Your task to perform on an android device: open device folders in google photos Image 0: 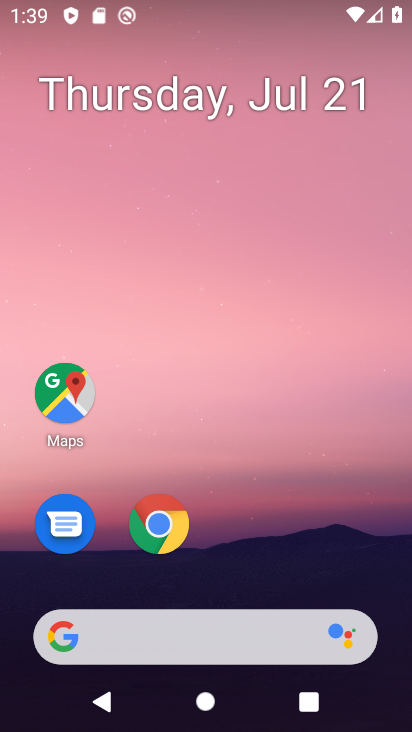
Step 0: drag from (268, 562) to (250, 58)
Your task to perform on an android device: open device folders in google photos Image 1: 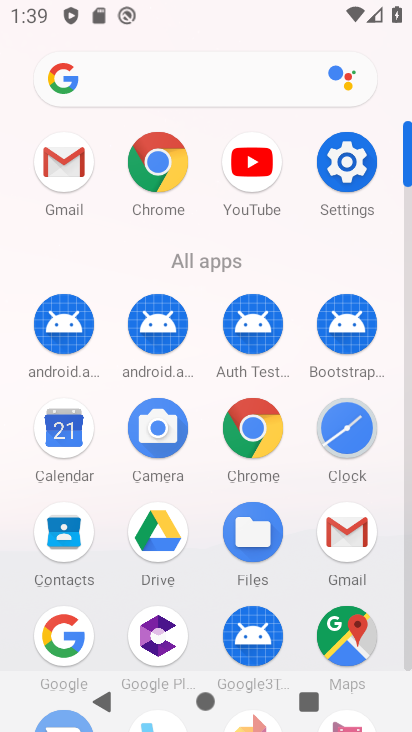
Step 1: drag from (211, 473) to (220, 190)
Your task to perform on an android device: open device folders in google photos Image 2: 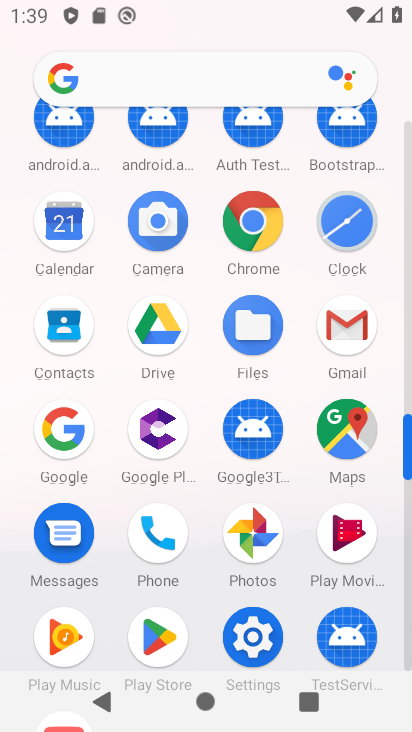
Step 2: click (268, 521)
Your task to perform on an android device: open device folders in google photos Image 3: 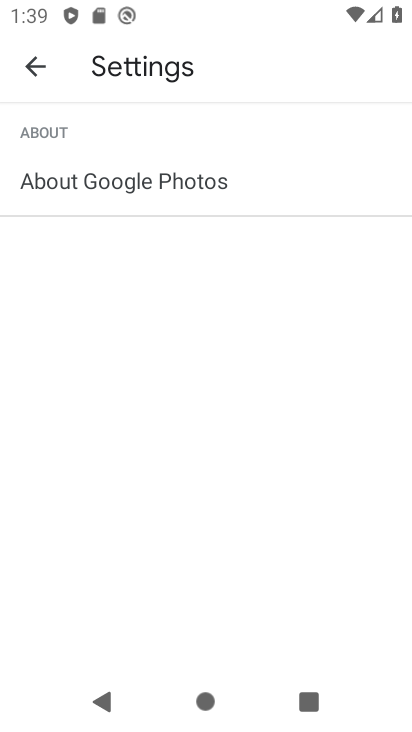
Step 3: click (45, 68)
Your task to perform on an android device: open device folders in google photos Image 4: 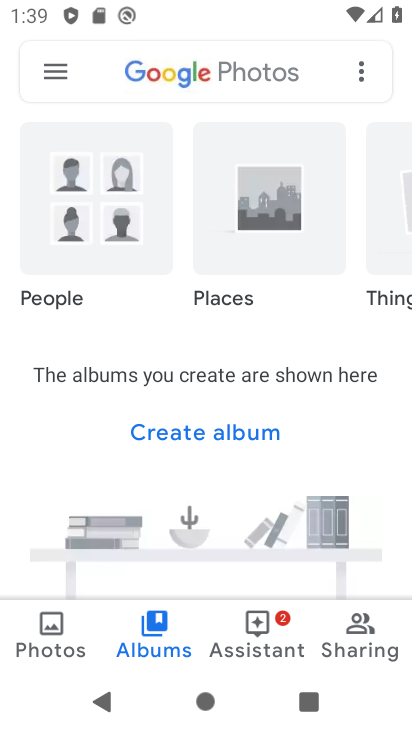
Step 4: click (58, 56)
Your task to perform on an android device: open device folders in google photos Image 5: 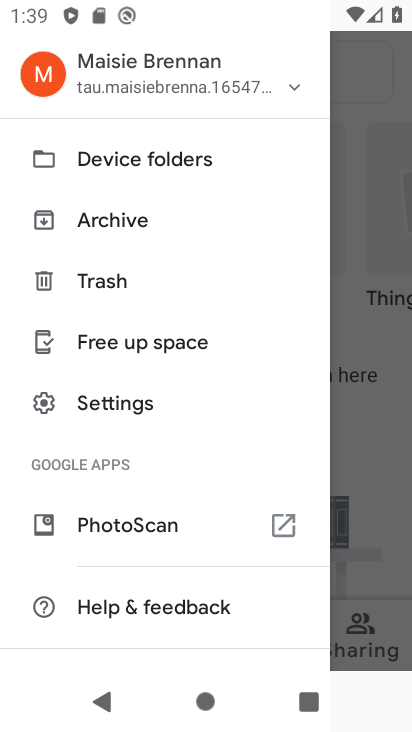
Step 5: click (114, 162)
Your task to perform on an android device: open device folders in google photos Image 6: 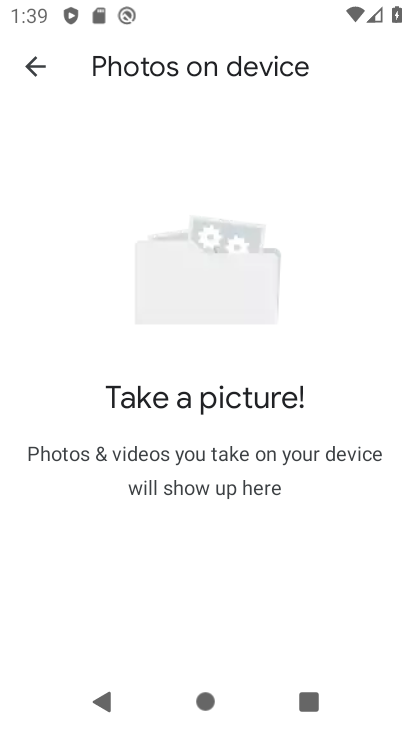
Step 6: task complete